Your task to perform on an android device: Show me popular games on the Play Store Image 0: 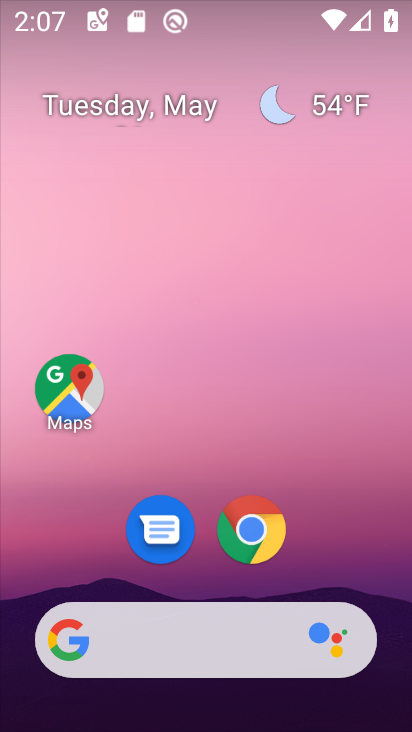
Step 0: drag from (348, 539) to (349, 215)
Your task to perform on an android device: Show me popular games on the Play Store Image 1: 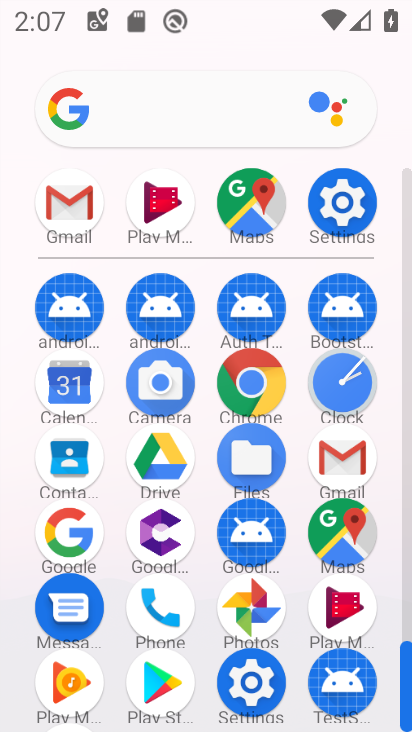
Step 1: drag from (202, 593) to (215, 385)
Your task to perform on an android device: Show me popular games on the Play Store Image 2: 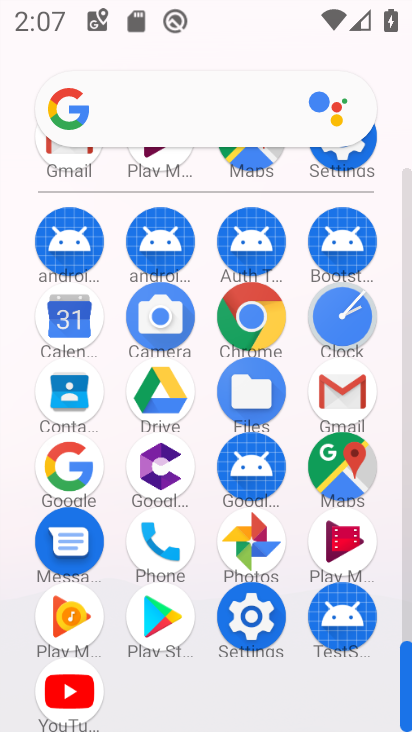
Step 2: click (155, 611)
Your task to perform on an android device: Show me popular games on the Play Store Image 3: 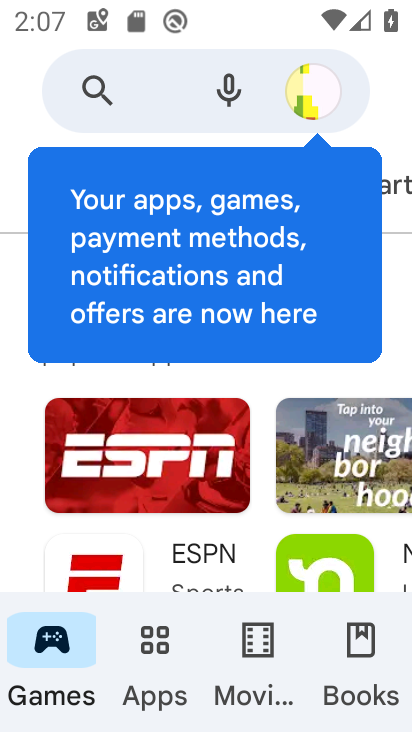
Step 3: click (154, 633)
Your task to perform on an android device: Show me popular games on the Play Store Image 4: 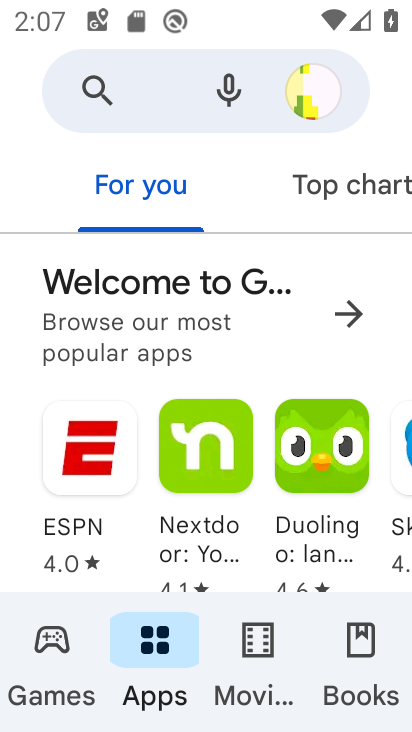
Step 4: task complete